Your task to perform on an android device: turn off location Image 0: 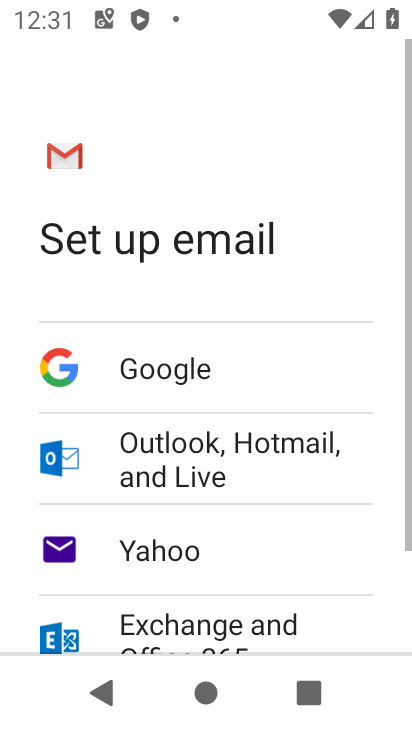
Step 0: press home button
Your task to perform on an android device: turn off location Image 1: 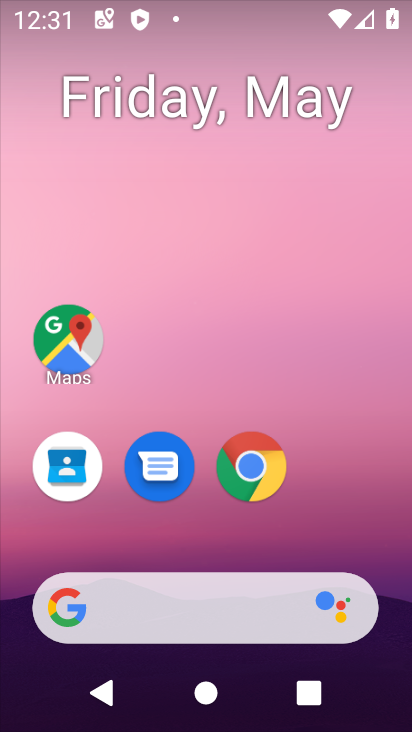
Step 1: drag from (265, 534) to (263, 119)
Your task to perform on an android device: turn off location Image 2: 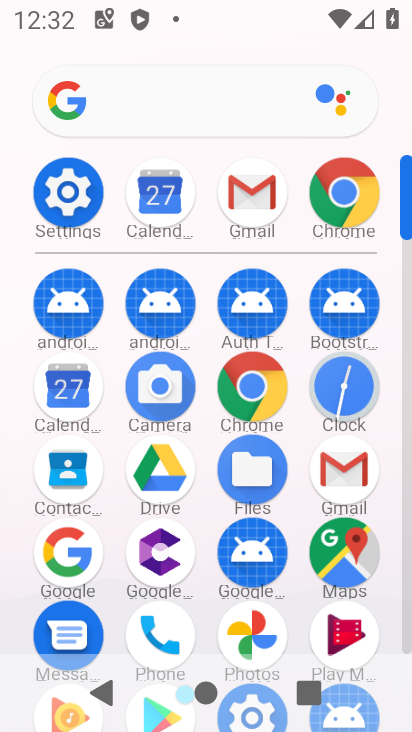
Step 2: click (71, 189)
Your task to perform on an android device: turn off location Image 3: 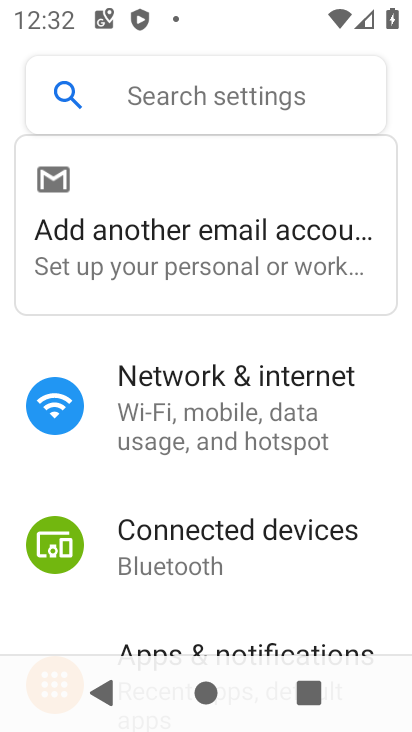
Step 3: drag from (234, 581) to (293, 244)
Your task to perform on an android device: turn off location Image 4: 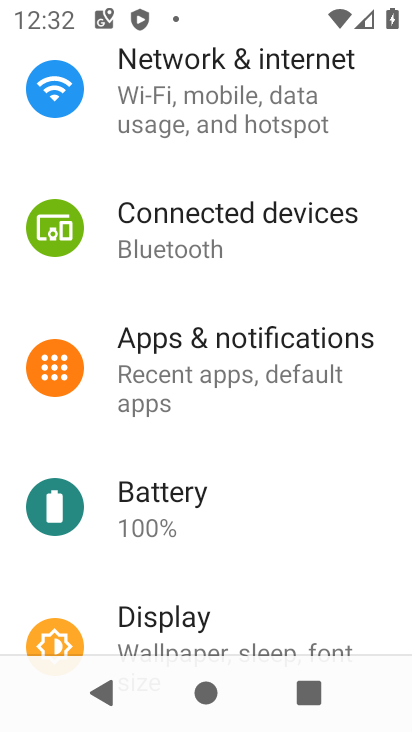
Step 4: drag from (208, 535) to (298, 232)
Your task to perform on an android device: turn off location Image 5: 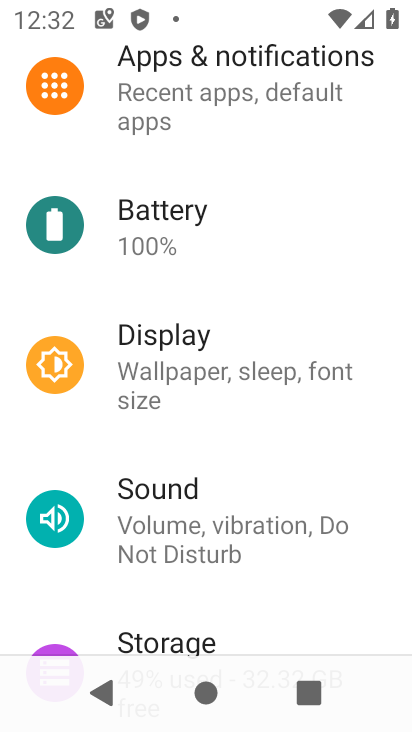
Step 5: click (331, 148)
Your task to perform on an android device: turn off location Image 6: 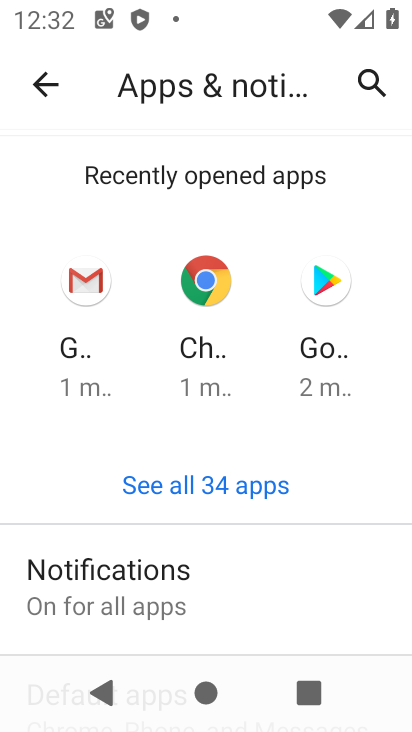
Step 6: click (45, 83)
Your task to perform on an android device: turn off location Image 7: 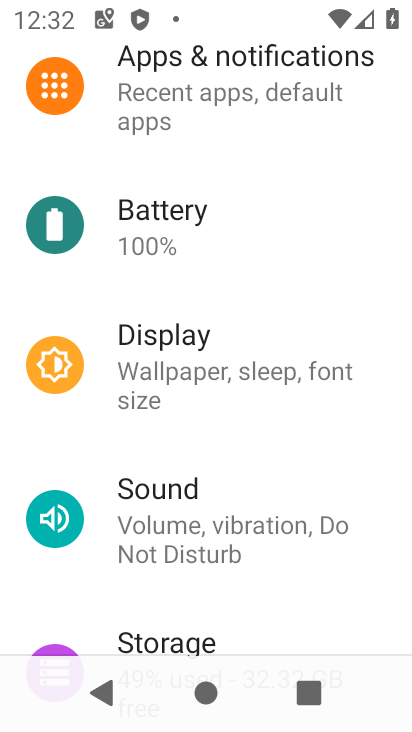
Step 7: drag from (269, 586) to (361, 110)
Your task to perform on an android device: turn off location Image 8: 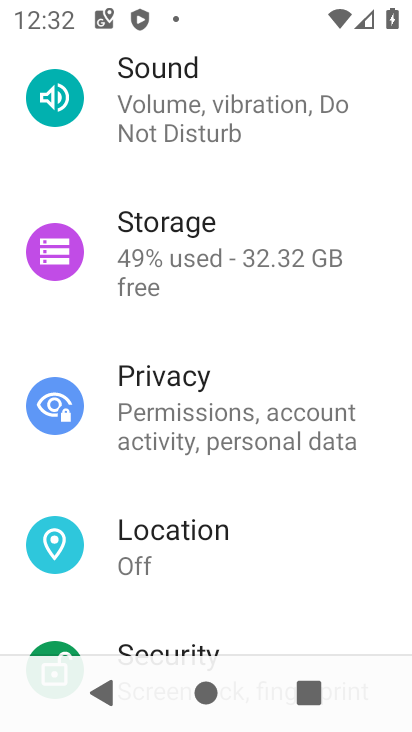
Step 8: click (158, 576)
Your task to perform on an android device: turn off location Image 9: 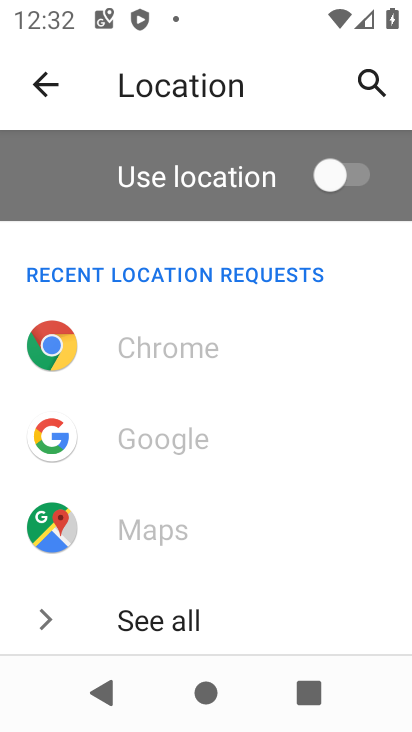
Step 9: task complete